Your task to perform on an android device: Open the phone app and click the voicemail tab. Image 0: 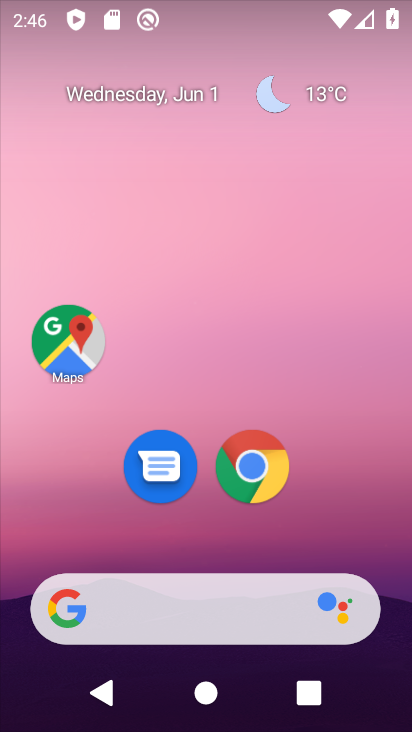
Step 0: drag from (383, 561) to (331, 206)
Your task to perform on an android device: Open the phone app and click the voicemail tab. Image 1: 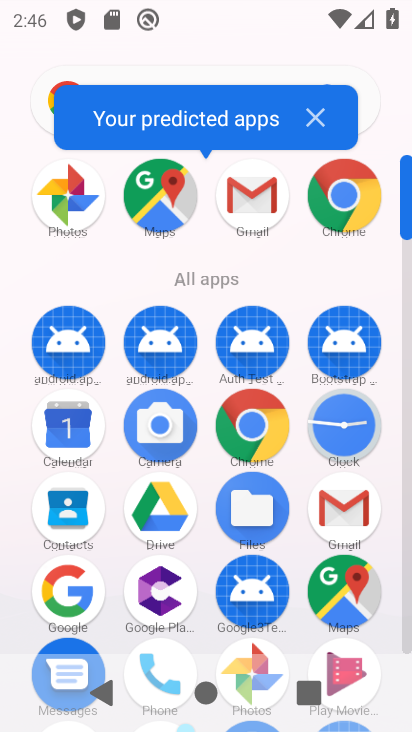
Step 1: click (155, 649)
Your task to perform on an android device: Open the phone app and click the voicemail tab. Image 2: 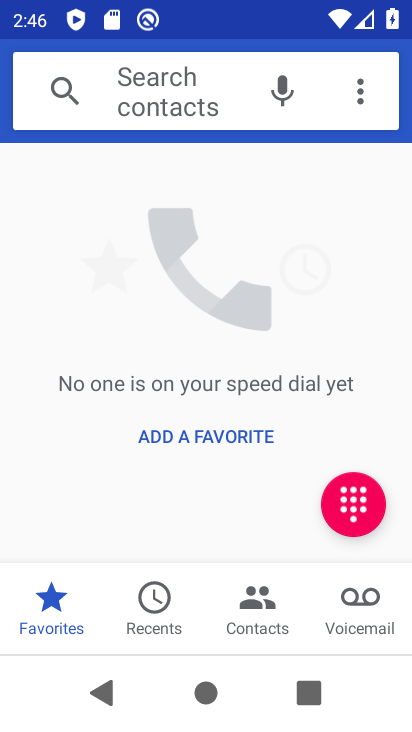
Step 2: click (345, 614)
Your task to perform on an android device: Open the phone app and click the voicemail tab. Image 3: 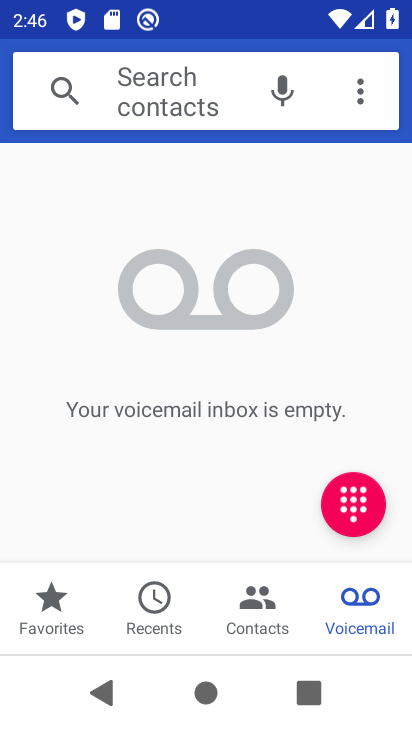
Step 3: task complete